Your task to perform on an android device: What's the weather like in Mexico City? Image 0: 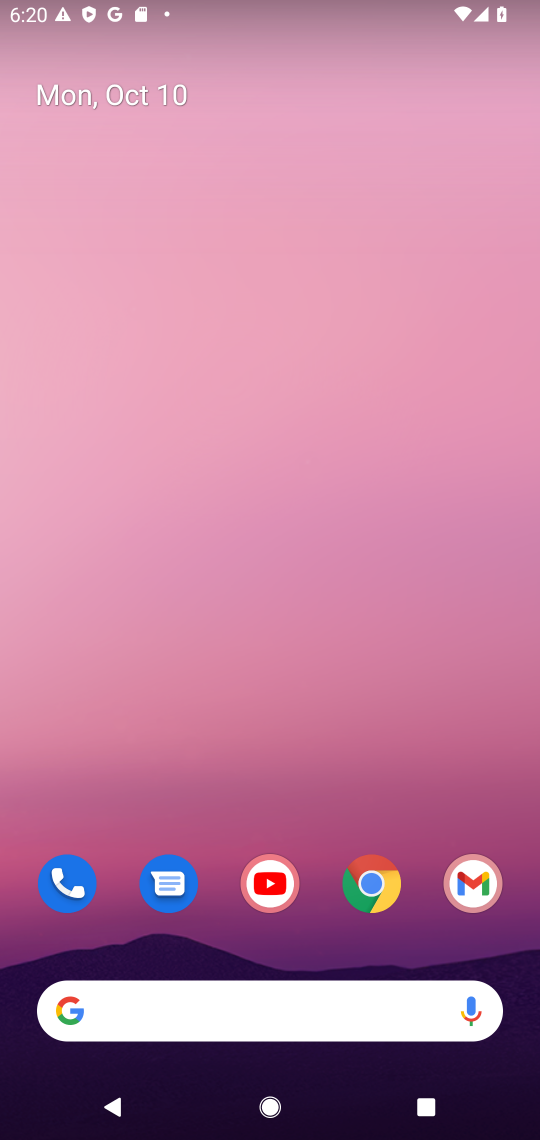
Step 0: click (295, 694)
Your task to perform on an android device: What's the weather like in Mexico City? Image 1: 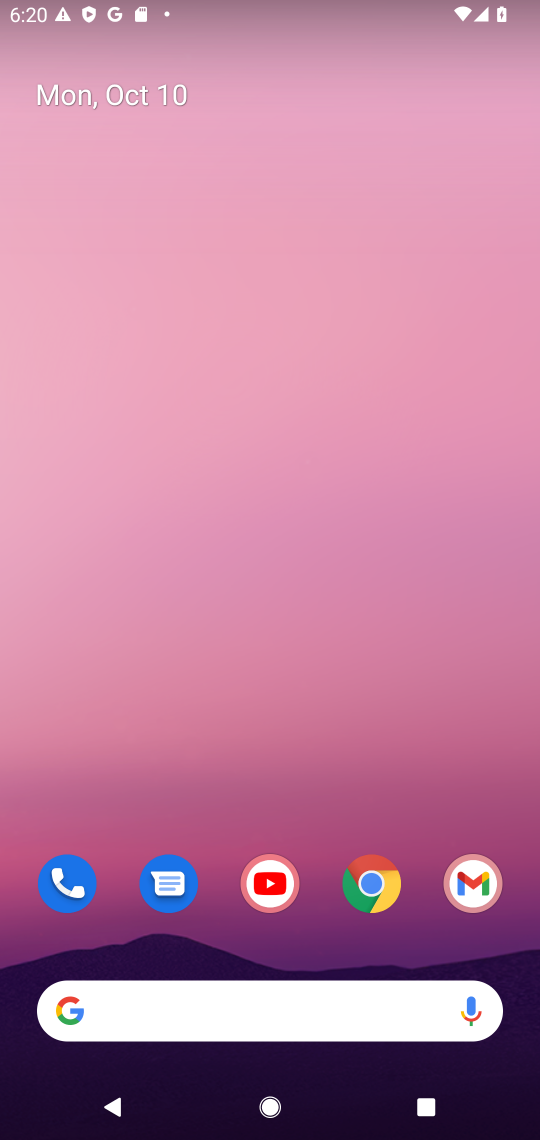
Step 1: drag from (375, 1027) to (352, 323)
Your task to perform on an android device: What's the weather like in Mexico City? Image 2: 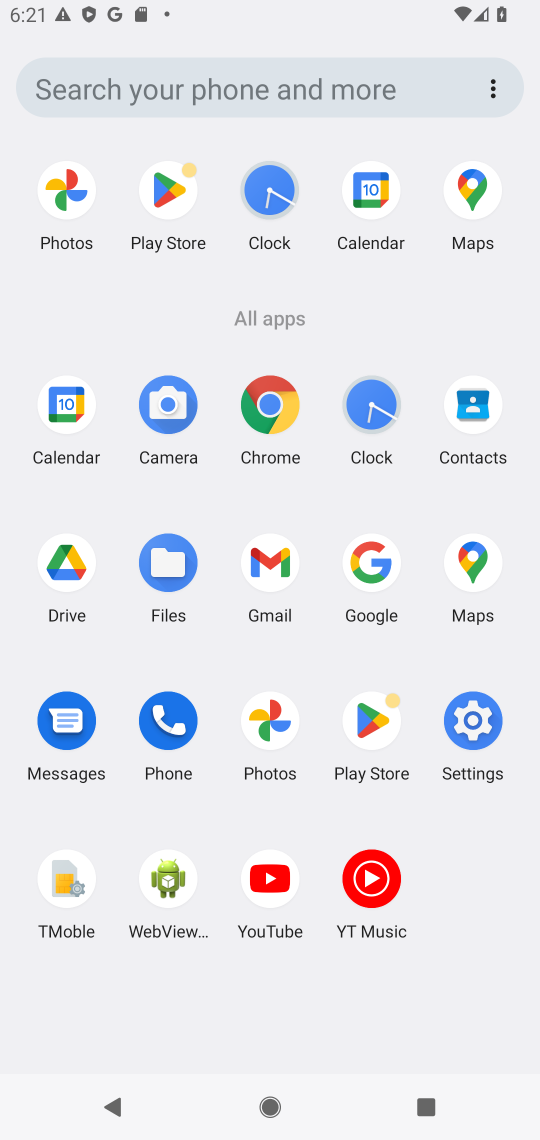
Step 2: click (381, 620)
Your task to perform on an android device: What's the weather like in Mexico City? Image 3: 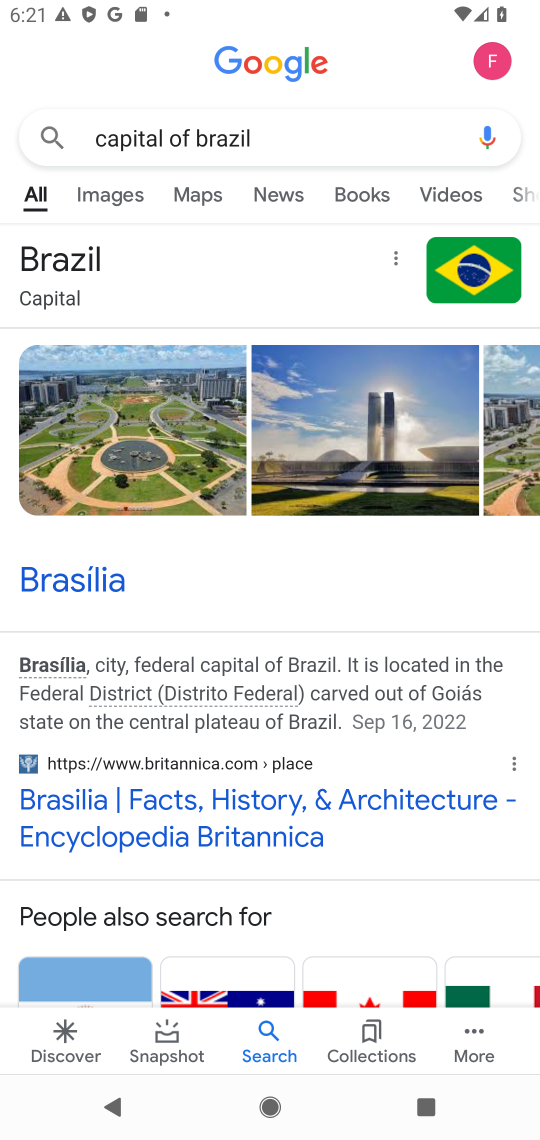
Step 3: click (380, 145)
Your task to perform on an android device: What's the weather like in Mexico City? Image 4: 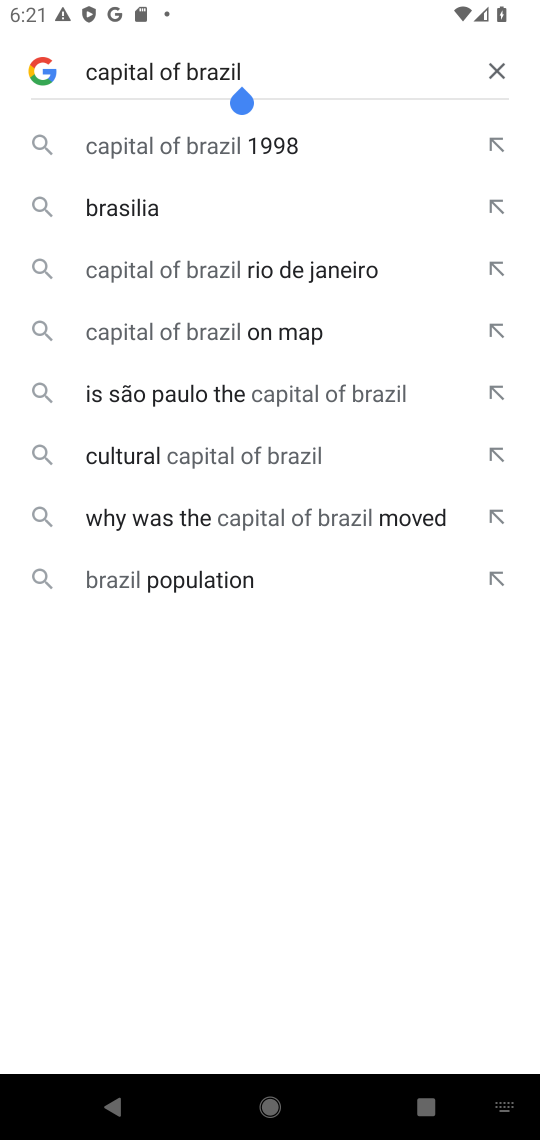
Step 4: click (492, 66)
Your task to perform on an android device: What's the weather like in Mexico City? Image 5: 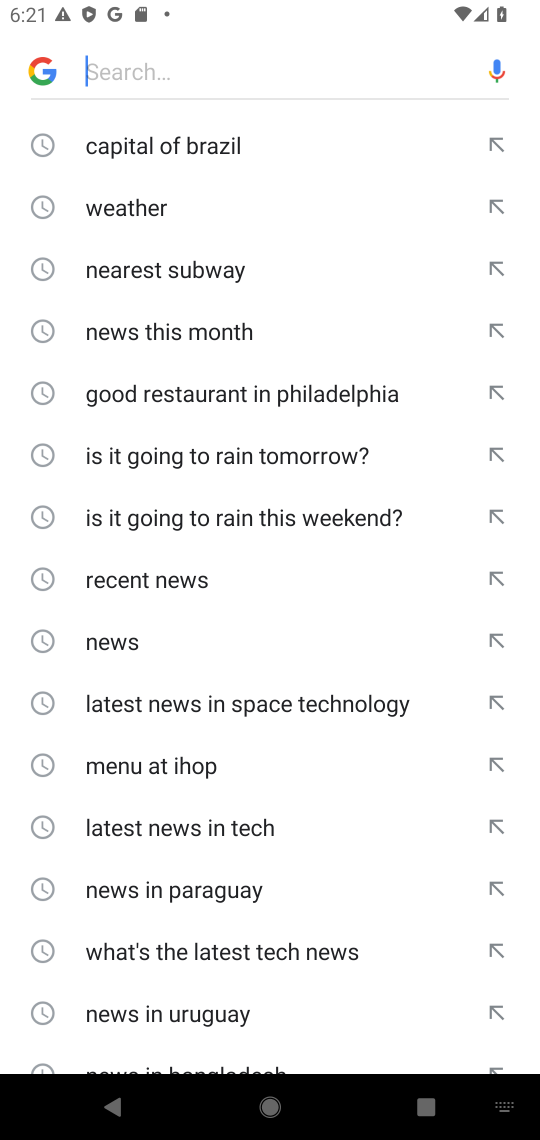
Step 5: type "What's the weather like in Mexico City?"
Your task to perform on an android device: What's the weather like in Mexico City? Image 6: 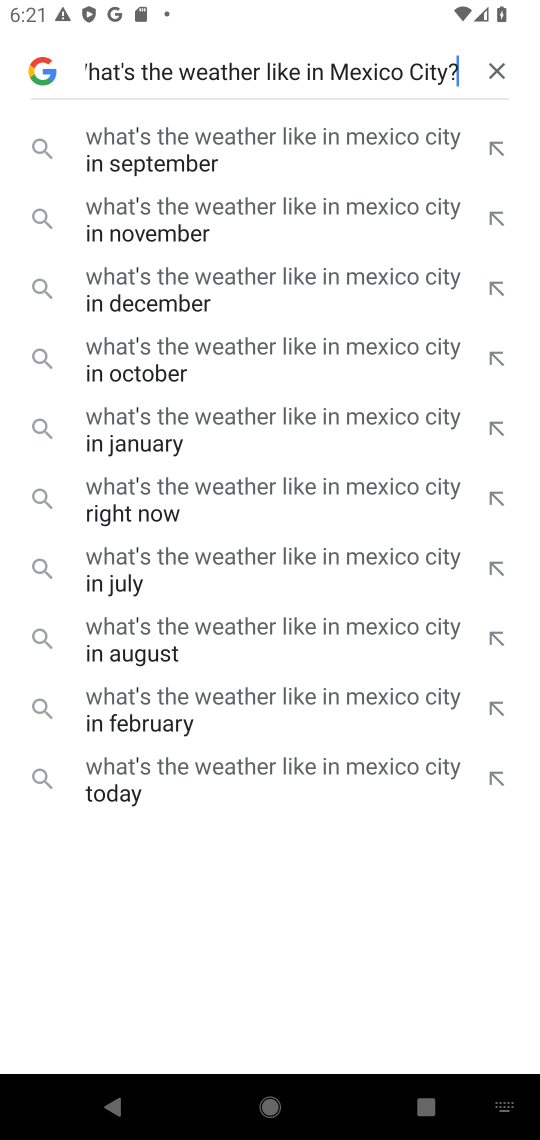
Step 6: click (283, 780)
Your task to perform on an android device: What's the weather like in Mexico City? Image 7: 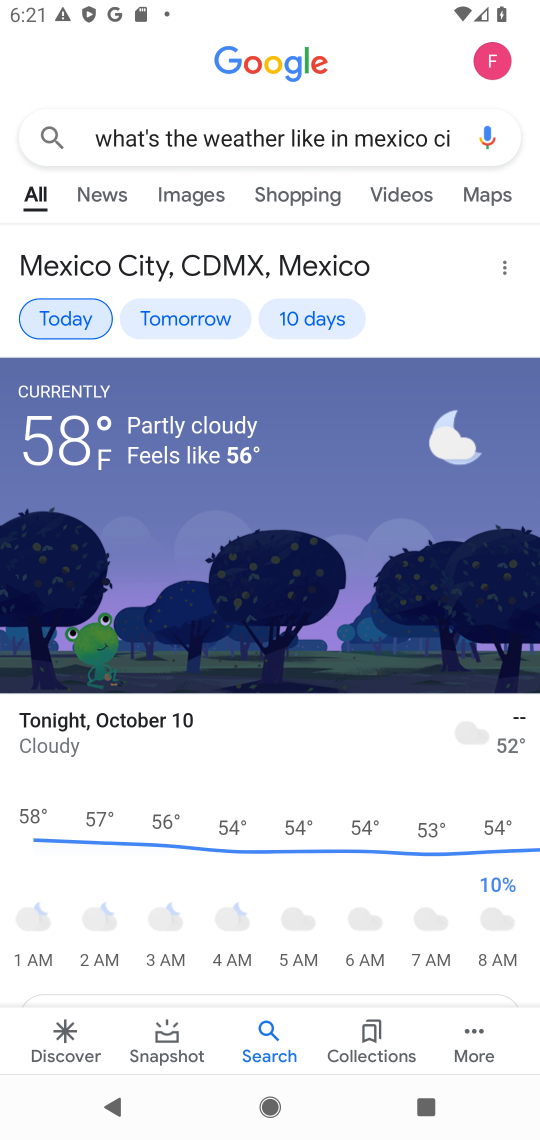
Step 7: task complete